Your task to perform on an android device: open app "Facebook" Image 0: 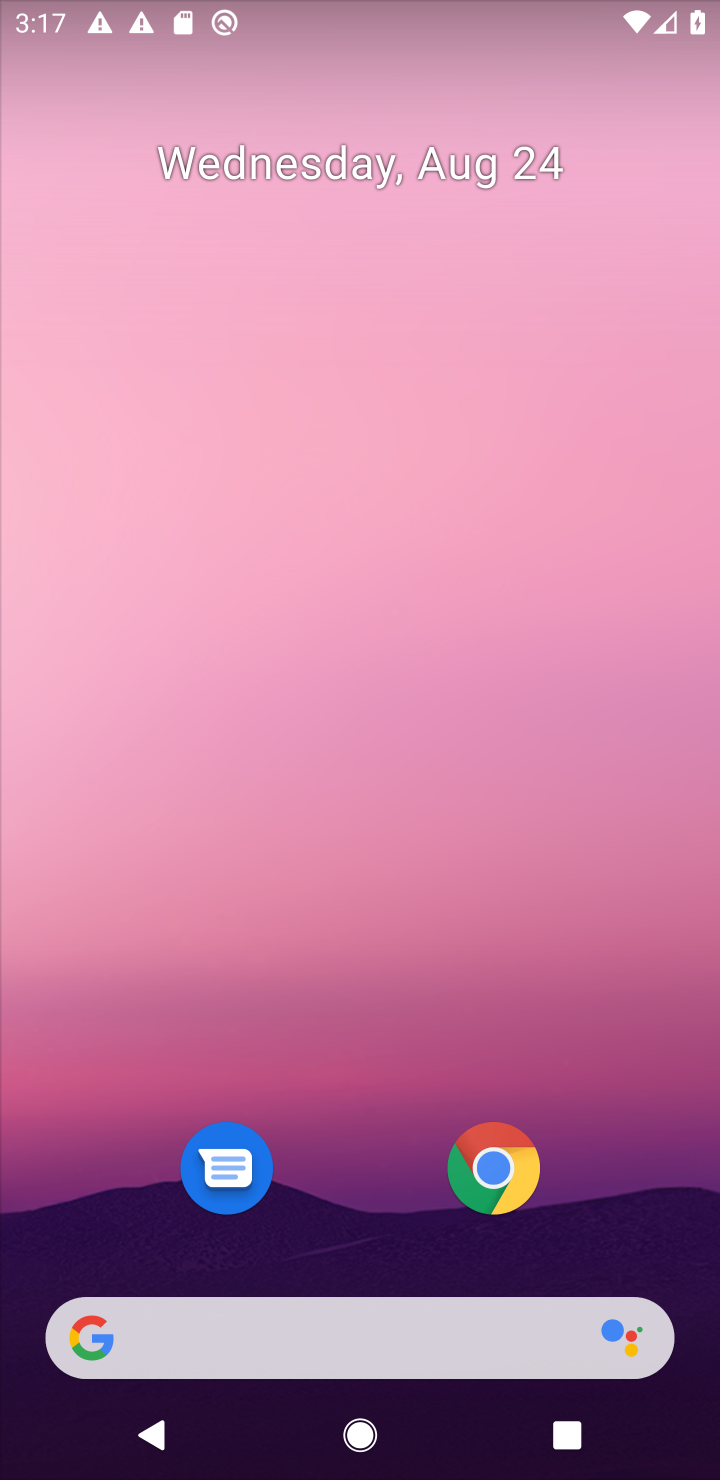
Step 0: drag from (665, 1011) to (605, 201)
Your task to perform on an android device: open app "Facebook" Image 1: 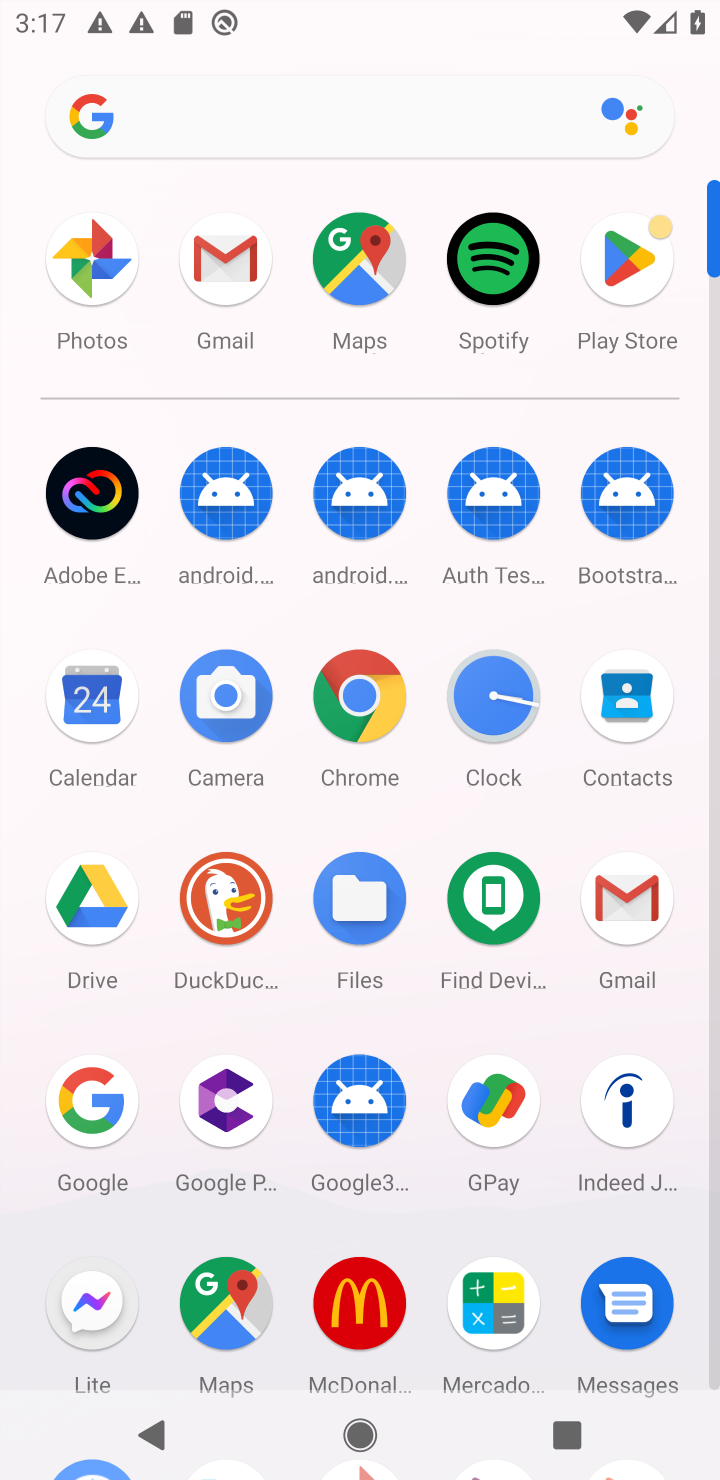
Step 1: click (709, 1358)
Your task to perform on an android device: open app "Facebook" Image 2: 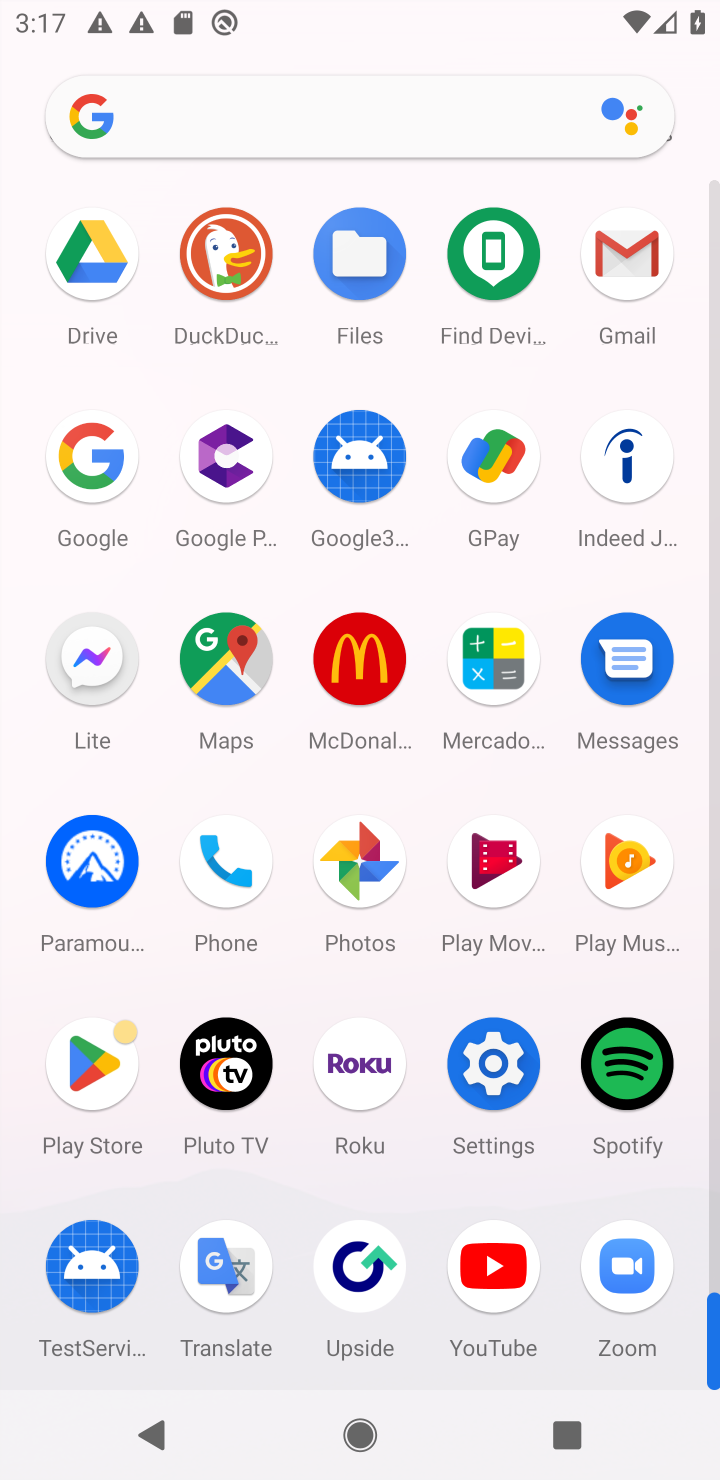
Step 2: click (86, 1052)
Your task to perform on an android device: open app "Facebook" Image 3: 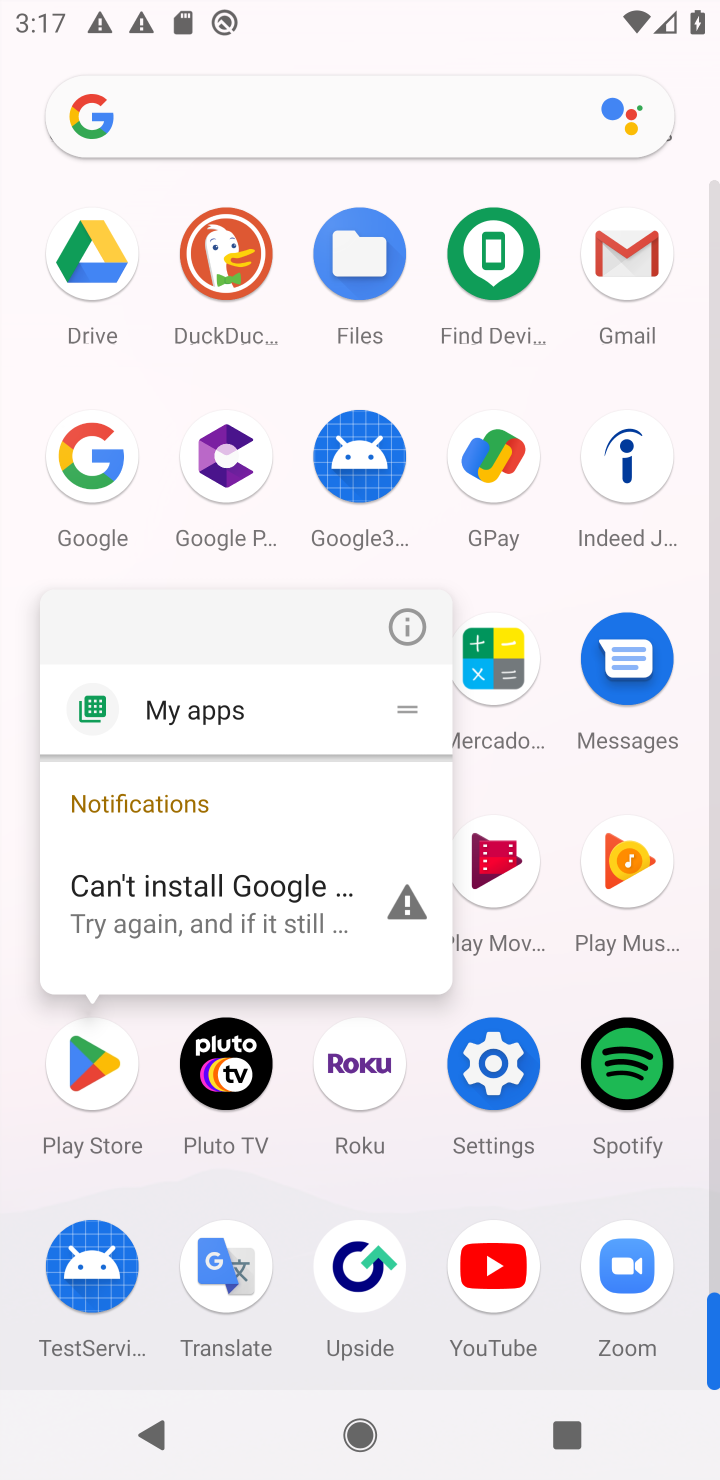
Step 3: click (86, 1052)
Your task to perform on an android device: open app "Facebook" Image 4: 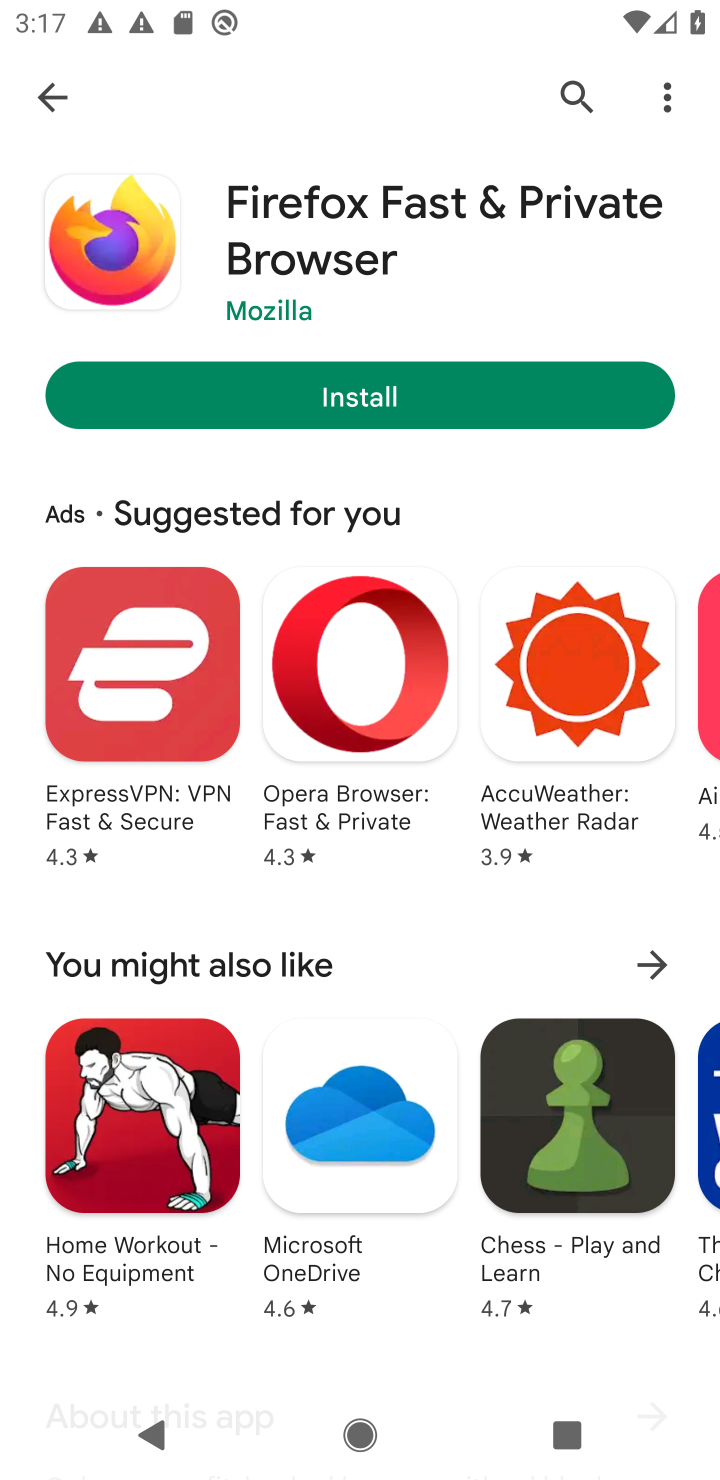
Step 4: click (567, 79)
Your task to perform on an android device: open app "Facebook" Image 5: 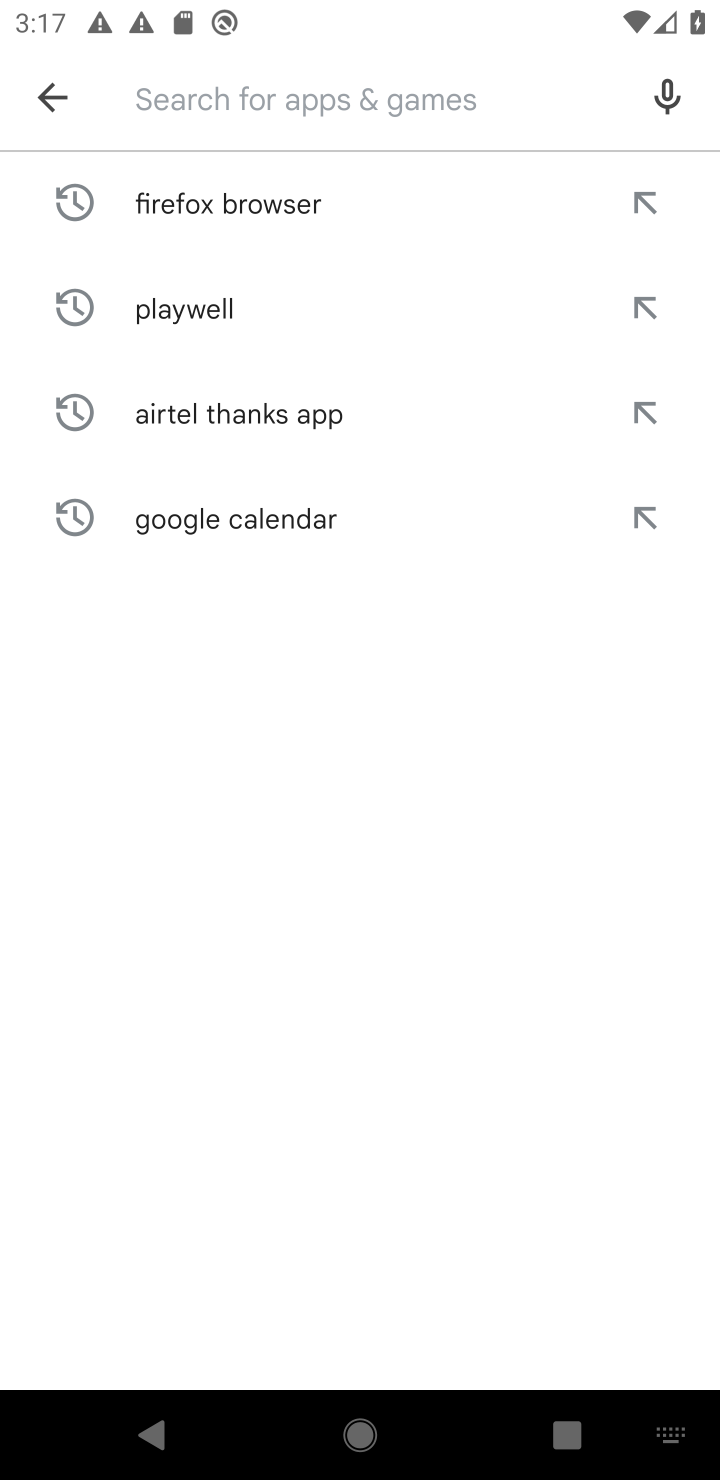
Step 5: type "Facebook"
Your task to perform on an android device: open app "Facebook" Image 6: 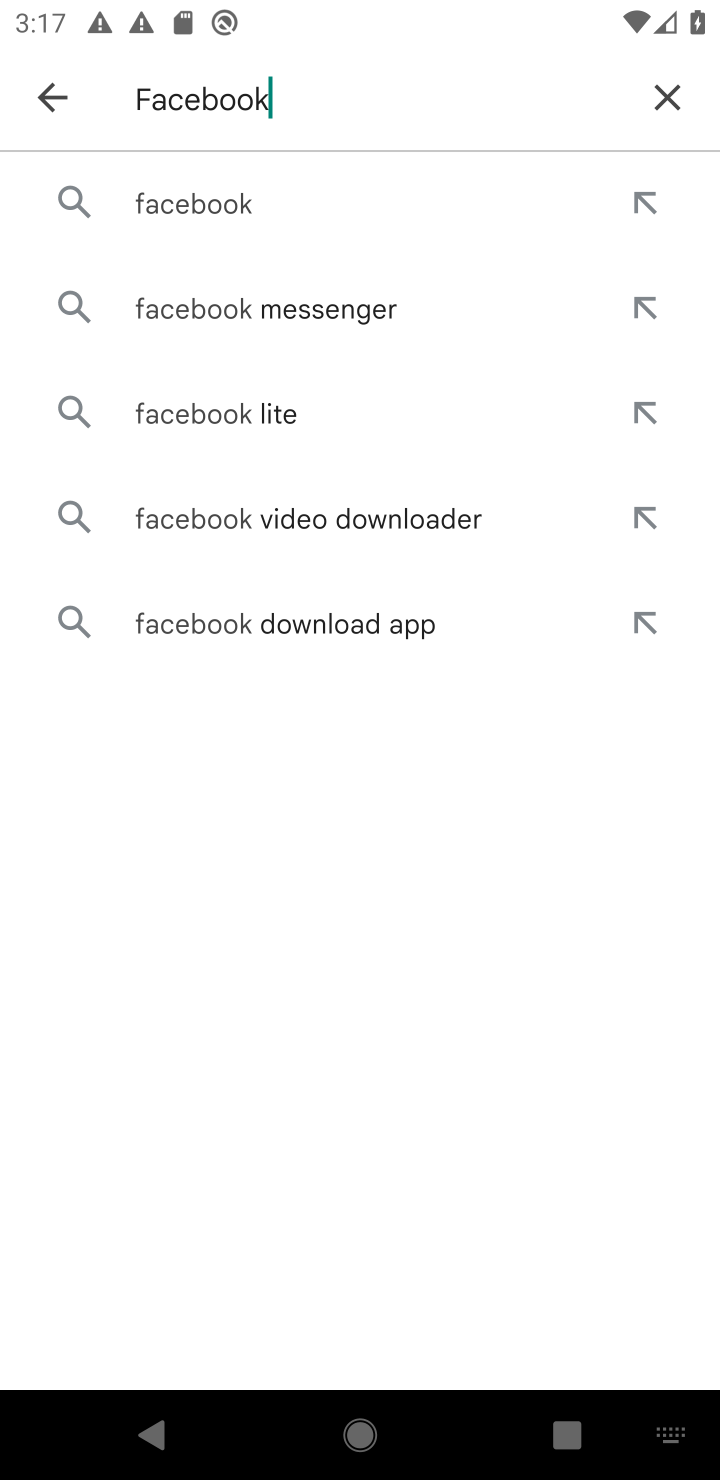
Step 6: click (183, 198)
Your task to perform on an android device: open app "Facebook" Image 7: 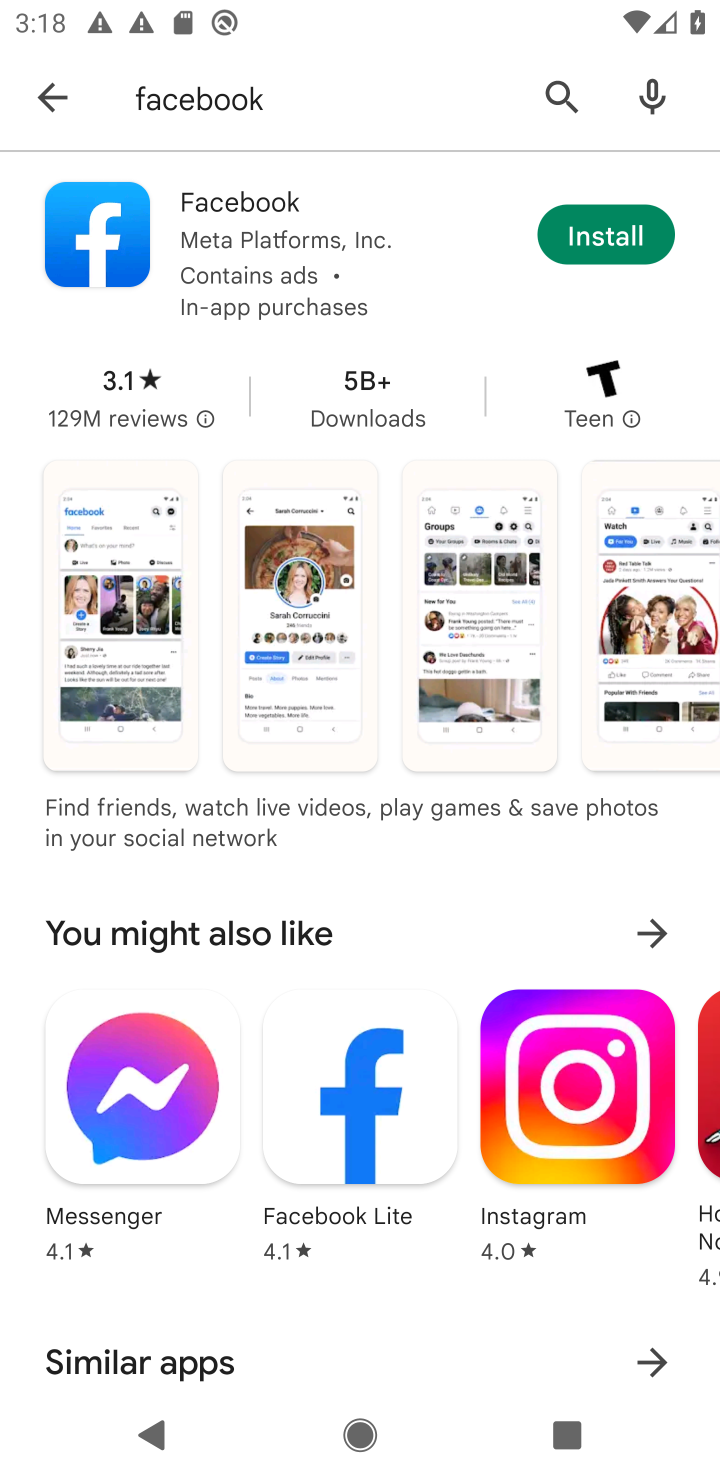
Step 7: task complete